Your task to perform on an android device: allow notifications from all sites in the chrome app Image 0: 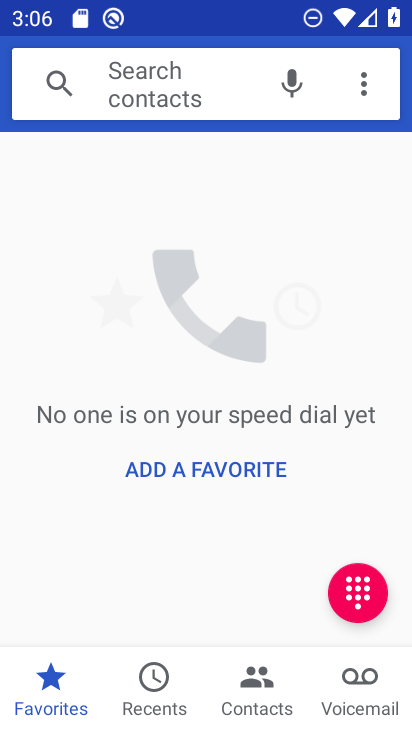
Step 0: press home button
Your task to perform on an android device: allow notifications from all sites in the chrome app Image 1: 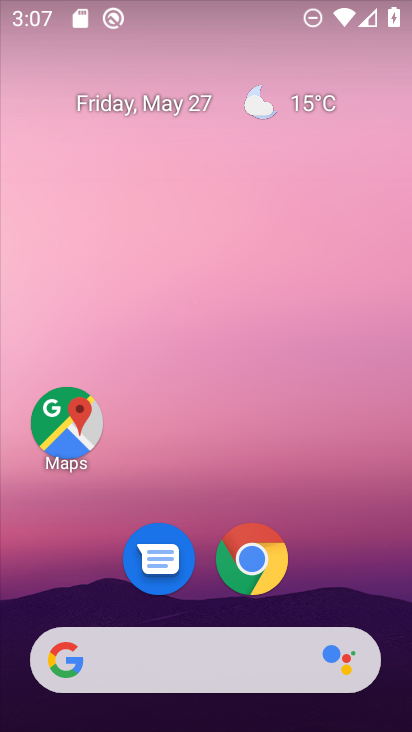
Step 1: drag from (308, 639) to (260, 44)
Your task to perform on an android device: allow notifications from all sites in the chrome app Image 2: 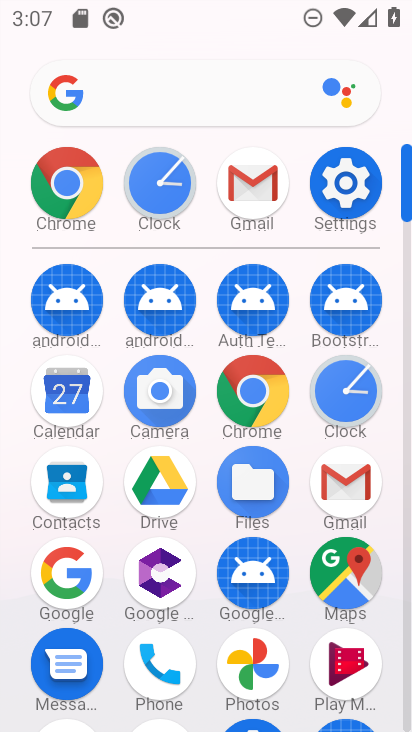
Step 2: click (269, 401)
Your task to perform on an android device: allow notifications from all sites in the chrome app Image 3: 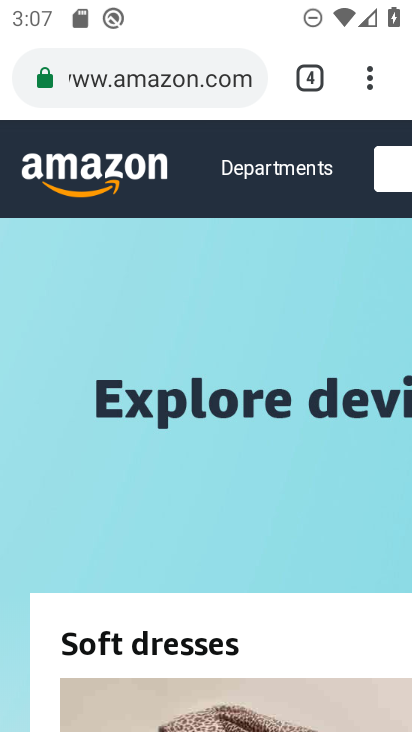
Step 3: drag from (373, 67) to (171, 630)
Your task to perform on an android device: allow notifications from all sites in the chrome app Image 4: 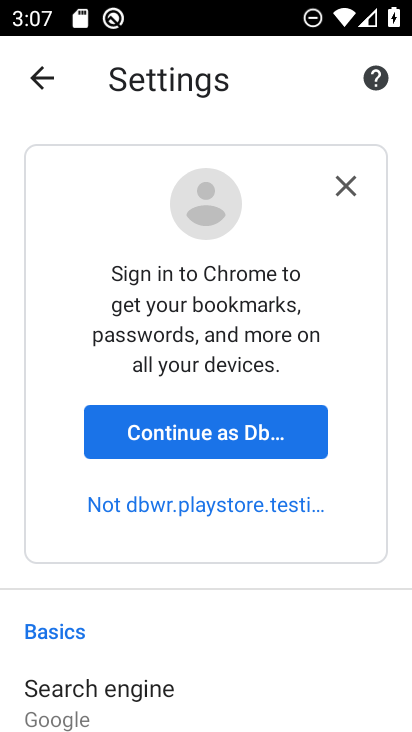
Step 4: drag from (241, 677) to (250, 105)
Your task to perform on an android device: allow notifications from all sites in the chrome app Image 5: 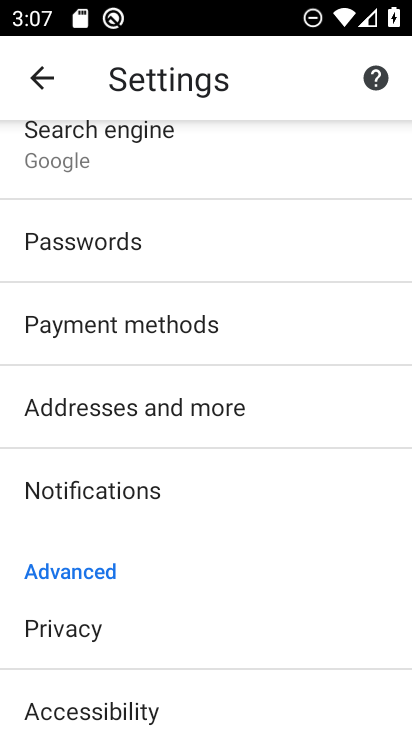
Step 5: drag from (266, 659) to (312, 231)
Your task to perform on an android device: allow notifications from all sites in the chrome app Image 6: 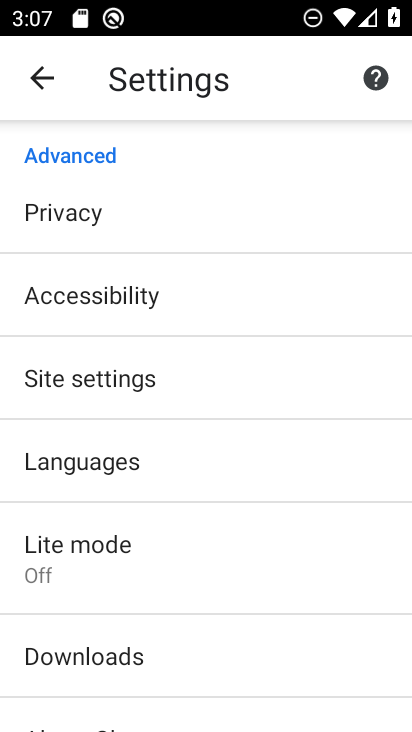
Step 6: click (140, 384)
Your task to perform on an android device: allow notifications from all sites in the chrome app Image 7: 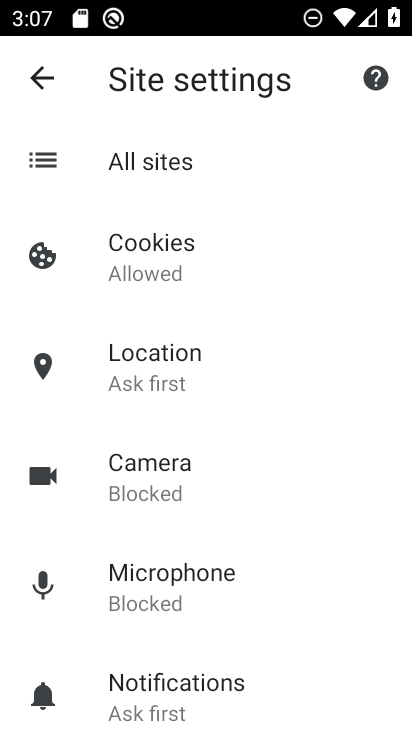
Step 7: click (200, 697)
Your task to perform on an android device: allow notifications from all sites in the chrome app Image 8: 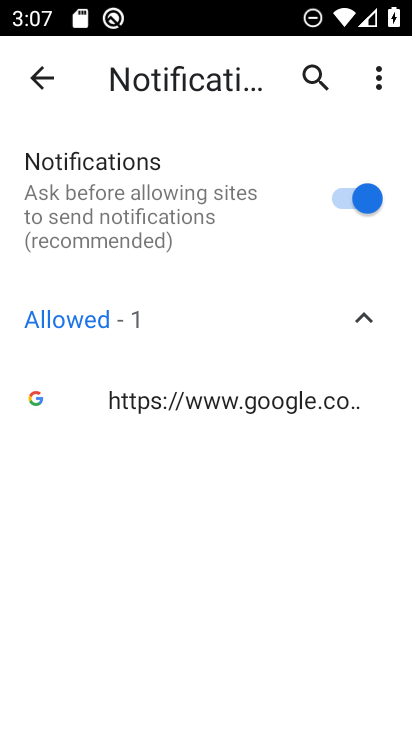
Step 8: task complete